Your task to perform on an android device: Play the last video I watched on Youtube Image 0: 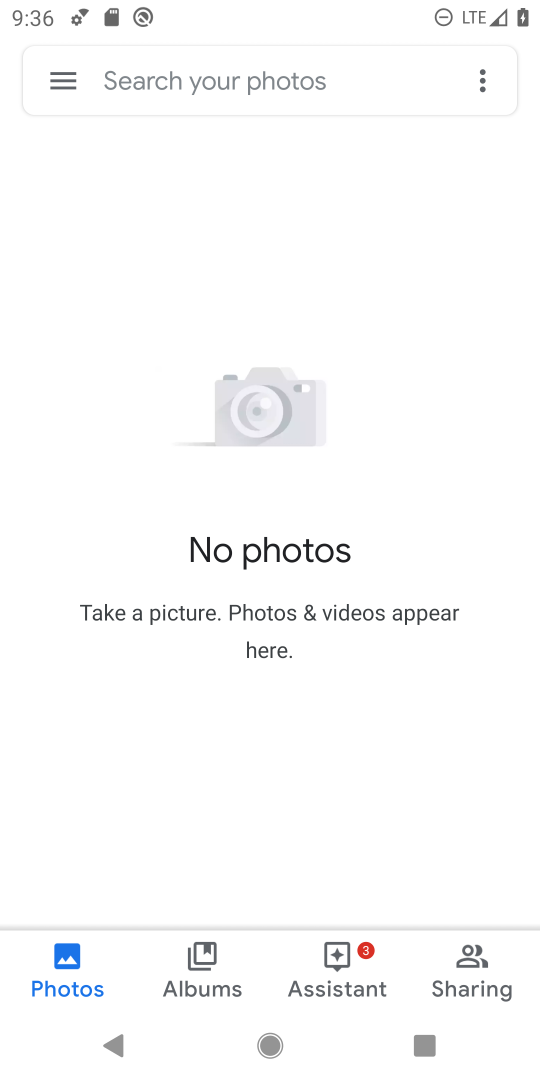
Step 0: press home button
Your task to perform on an android device: Play the last video I watched on Youtube Image 1: 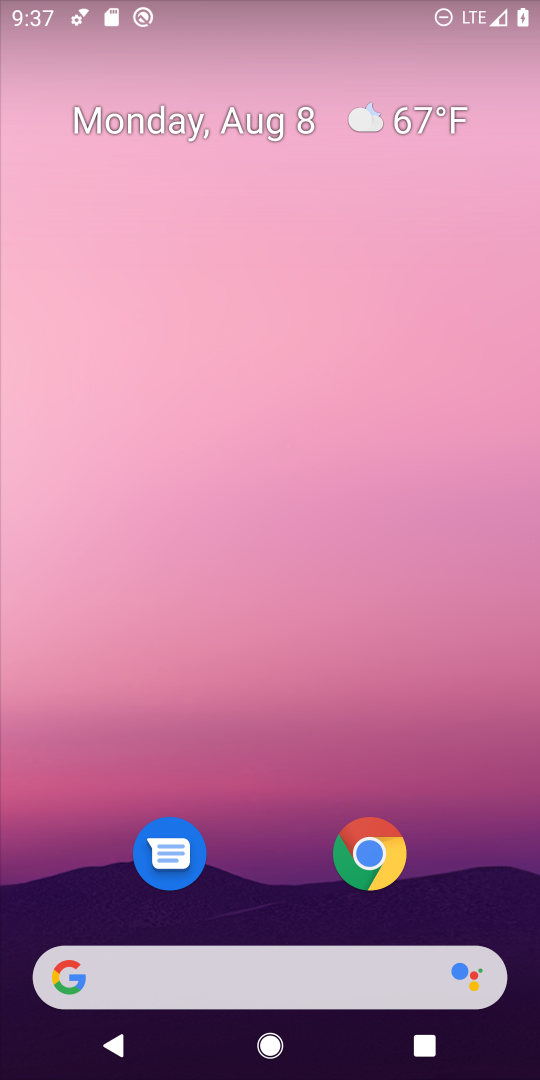
Step 1: drag from (280, 881) to (252, 59)
Your task to perform on an android device: Play the last video I watched on Youtube Image 2: 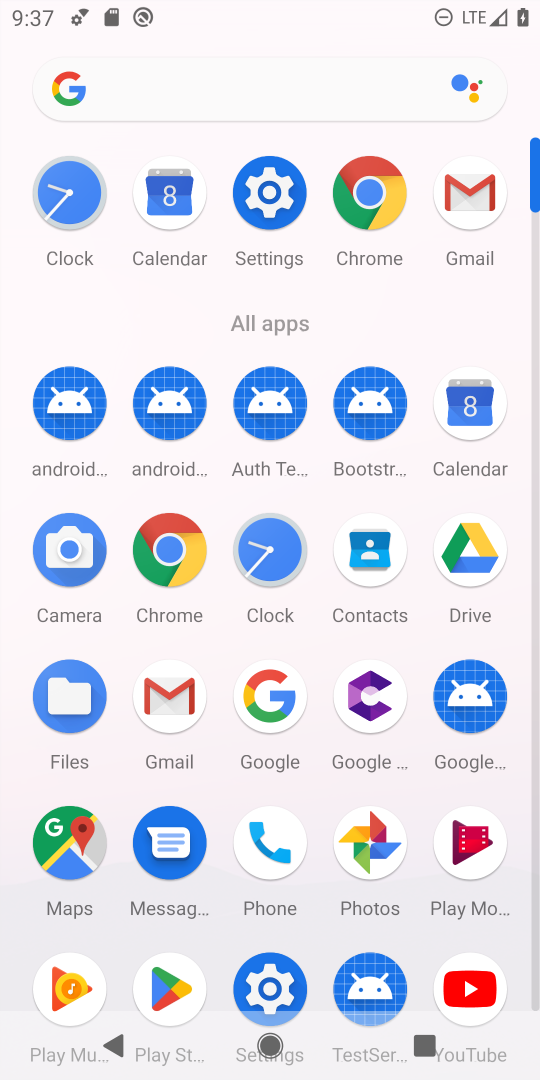
Step 2: click (471, 856)
Your task to perform on an android device: Play the last video I watched on Youtube Image 3: 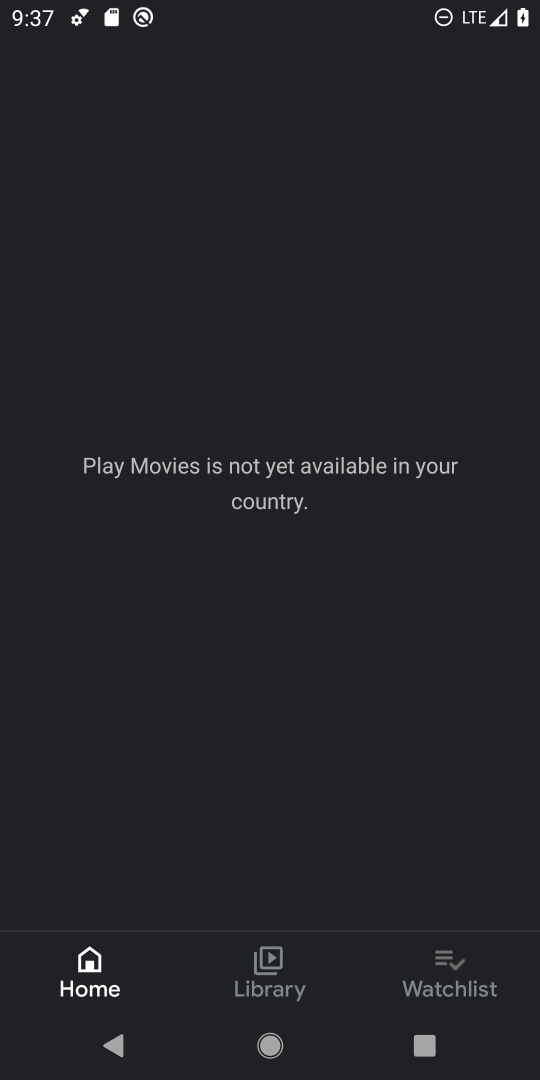
Step 3: click (282, 1060)
Your task to perform on an android device: Play the last video I watched on Youtube Image 4: 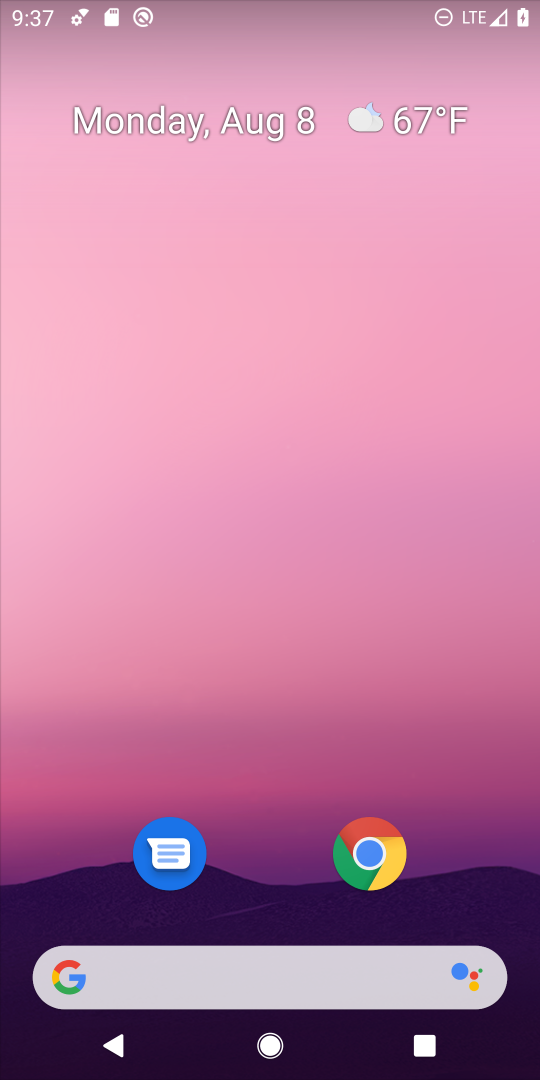
Step 4: drag from (261, 921) to (65, 170)
Your task to perform on an android device: Play the last video I watched on Youtube Image 5: 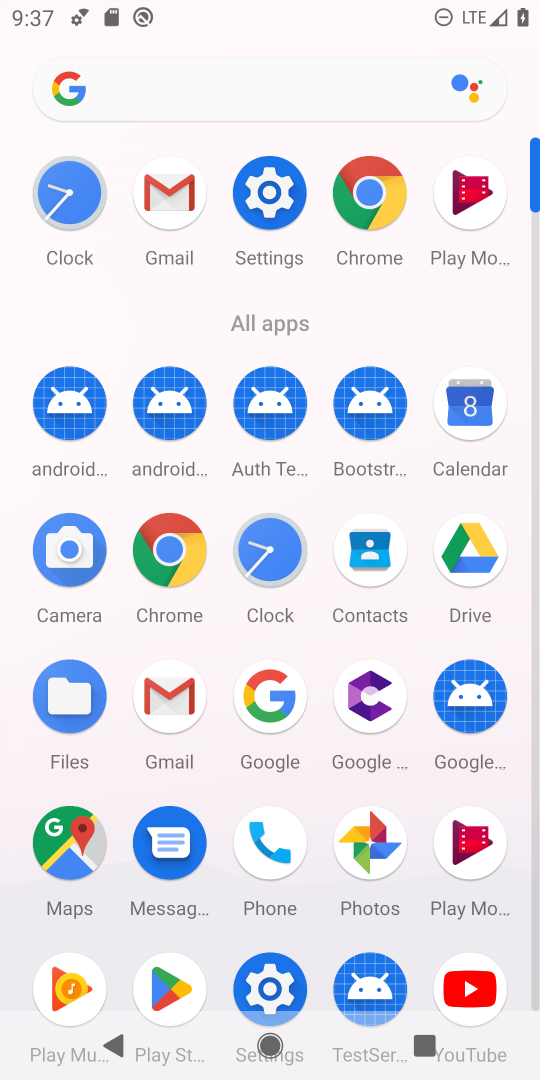
Step 5: click (486, 1008)
Your task to perform on an android device: Play the last video I watched on Youtube Image 6: 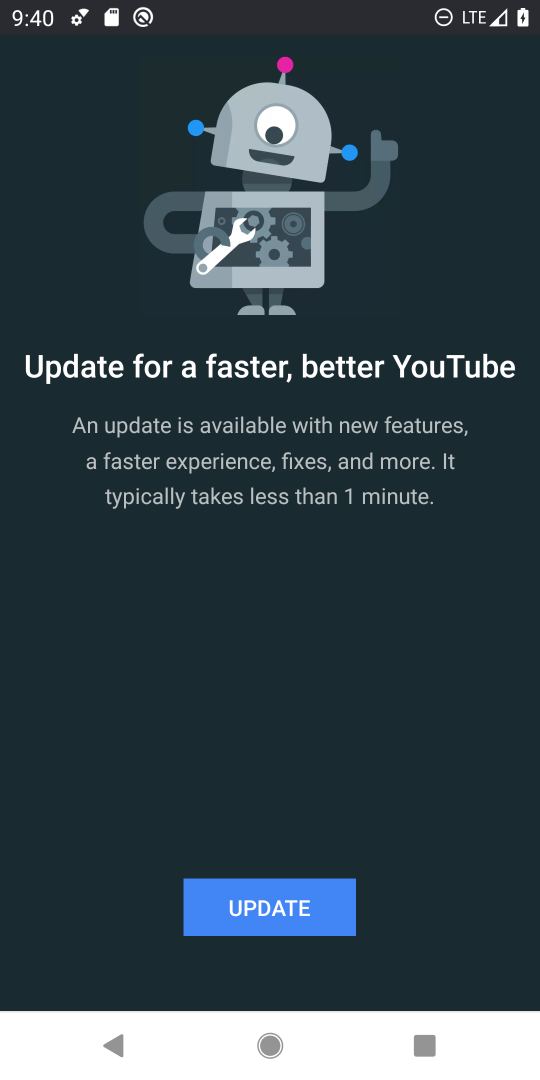
Step 6: task complete